Your task to perform on an android device: Go to Maps Image 0: 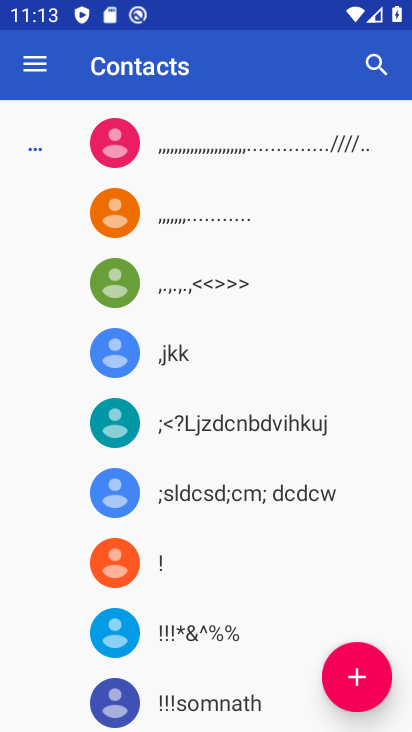
Step 0: press home button
Your task to perform on an android device: Go to Maps Image 1: 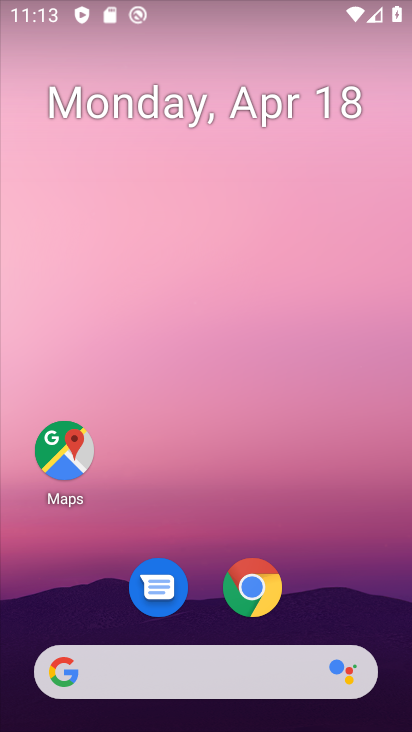
Step 1: drag from (336, 625) to (335, 154)
Your task to perform on an android device: Go to Maps Image 2: 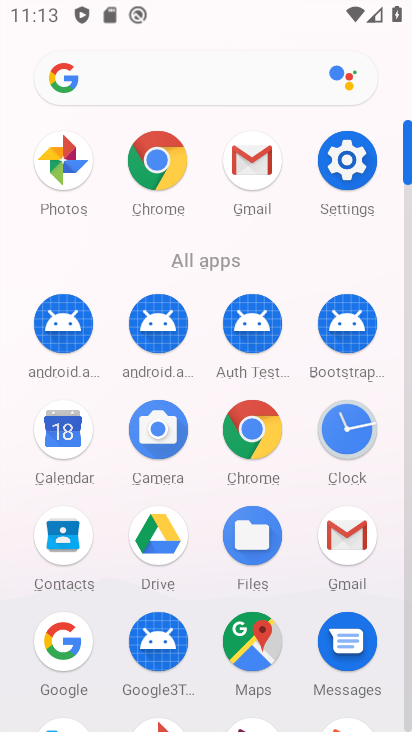
Step 2: drag from (302, 286) to (306, 9)
Your task to perform on an android device: Go to Maps Image 3: 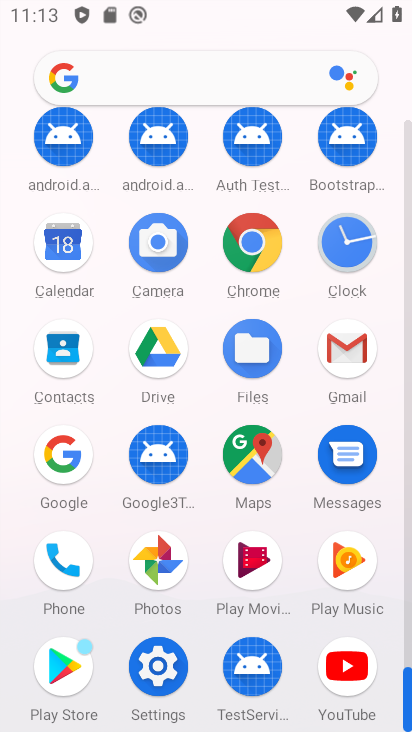
Step 3: click (260, 457)
Your task to perform on an android device: Go to Maps Image 4: 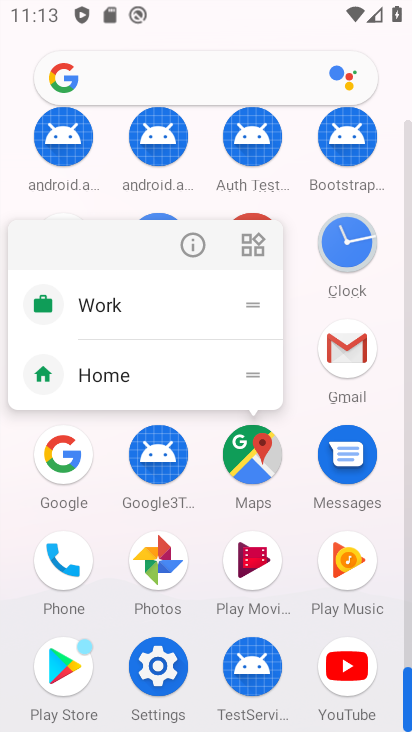
Step 4: click (254, 456)
Your task to perform on an android device: Go to Maps Image 5: 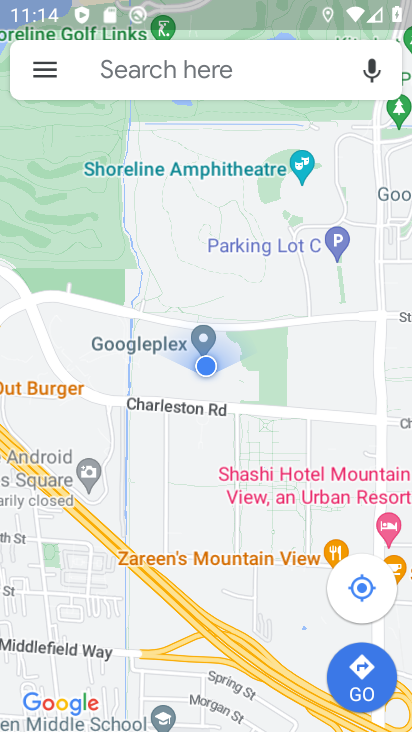
Step 5: task complete